Your task to perform on an android device: What's the weather like in Paris? Image 0: 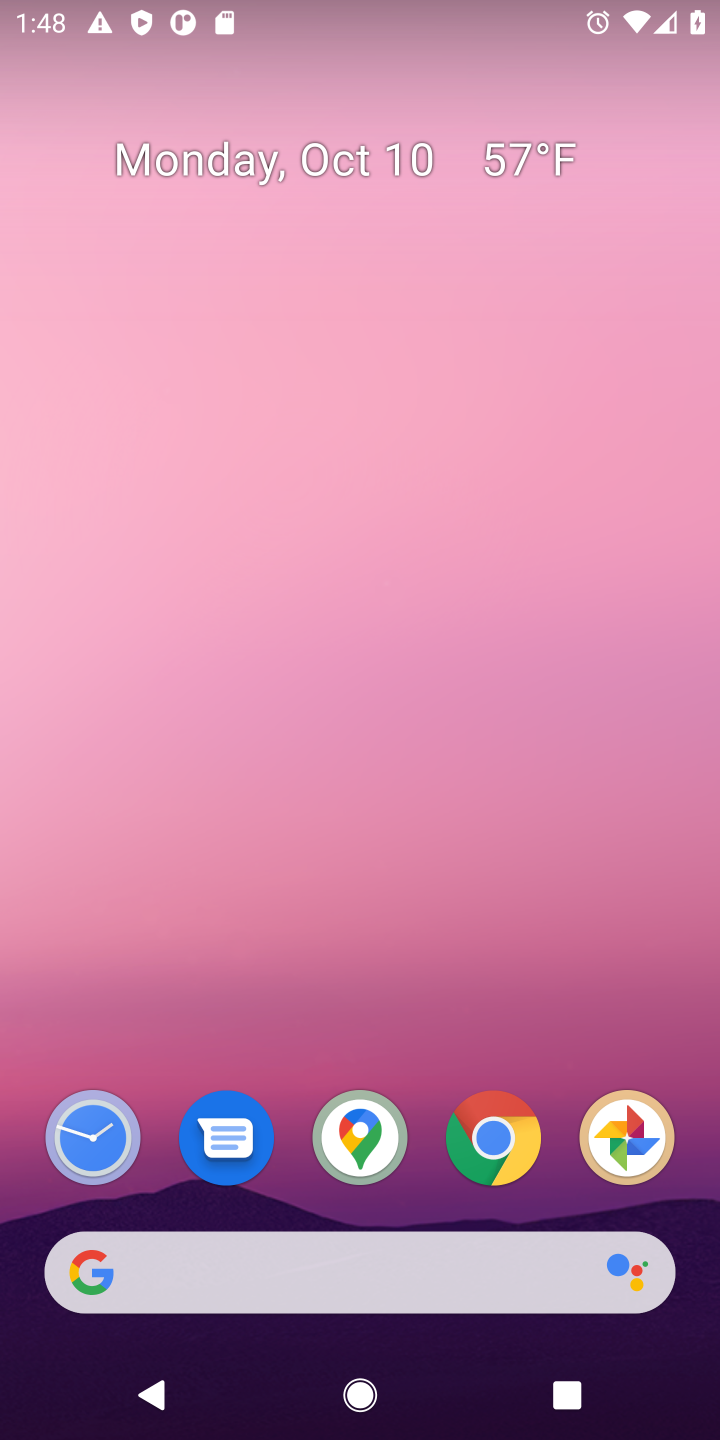
Step 0: click (422, 1270)
Your task to perform on an android device: What's the weather like in Paris? Image 1: 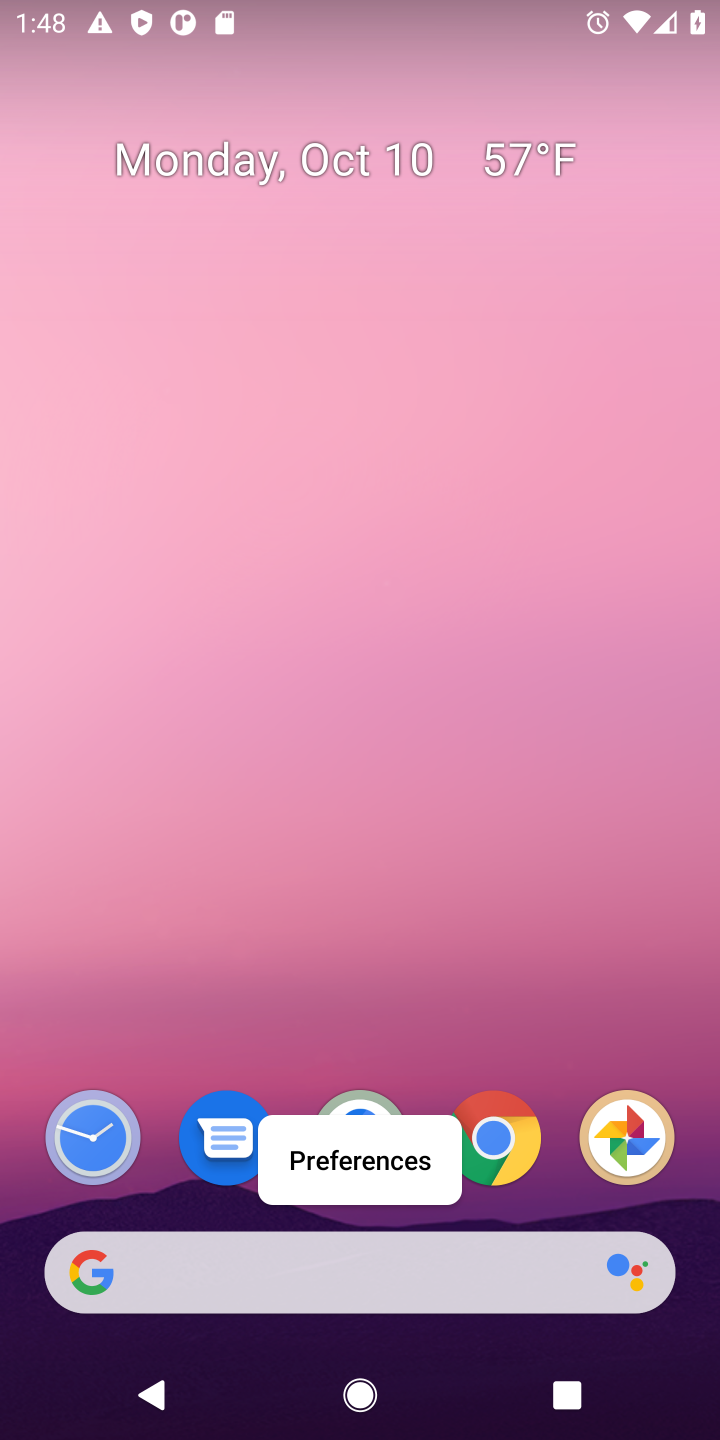
Step 1: click (177, 1254)
Your task to perform on an android device: What's the weather like in Paris? Image 2: 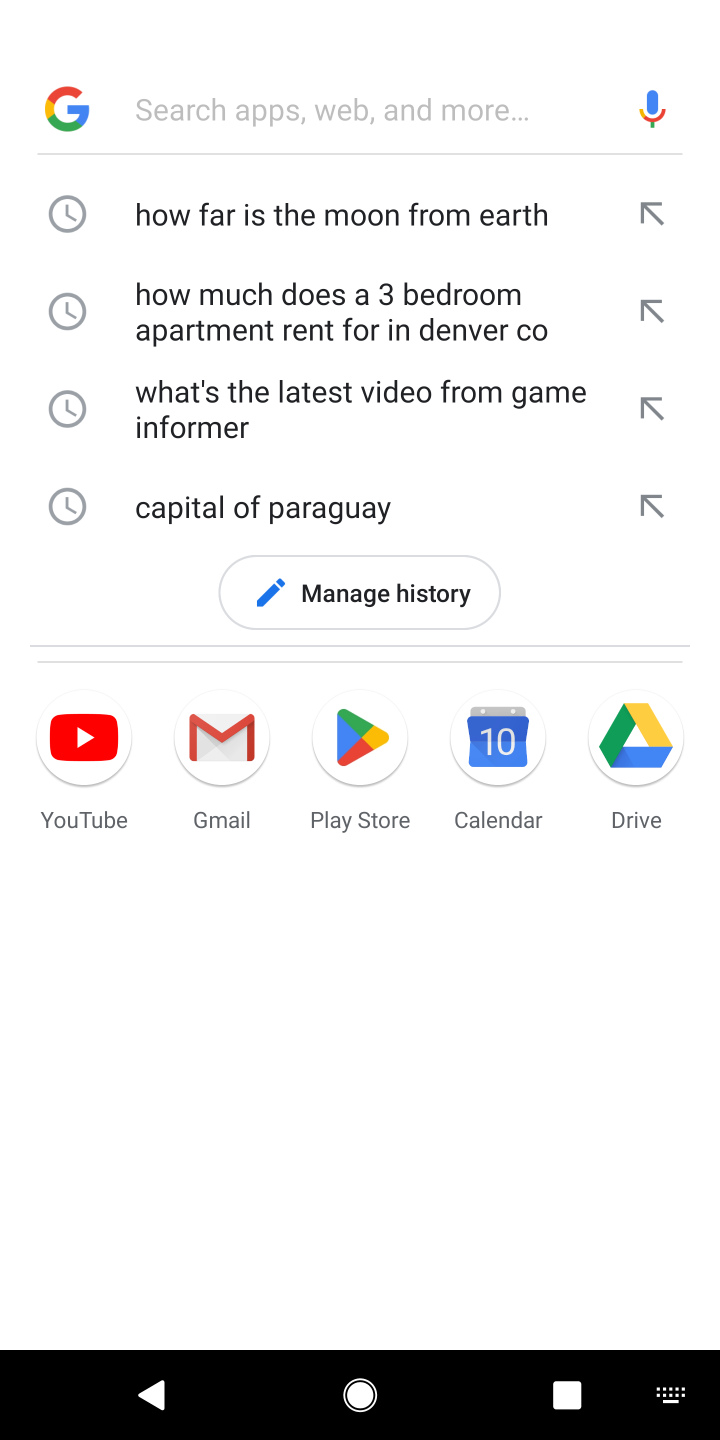
Step 2: type "whats the weather like in paris?"
Your task to perform on an android device: What's the weather like in Paris? Image 3: 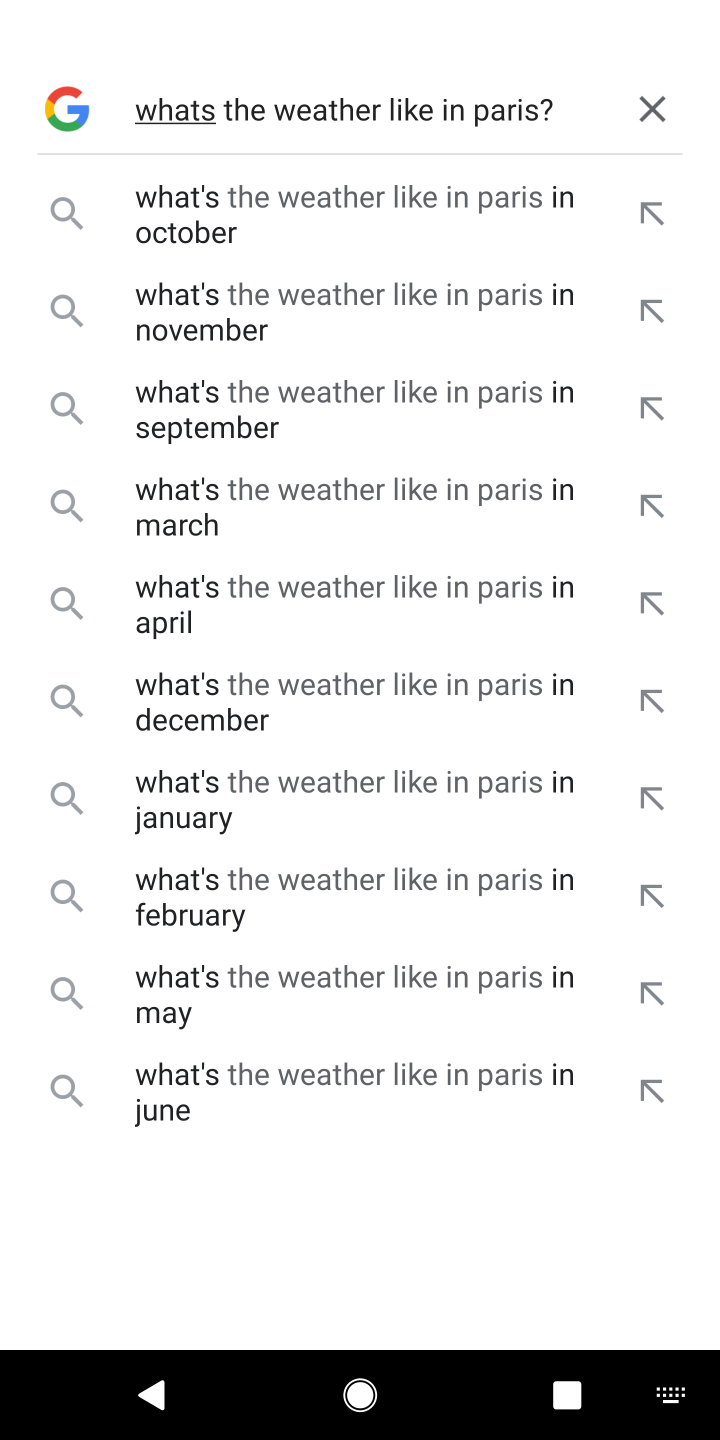
Step 3: click (231, 201)
Your task to perform on an android device: What's the weather like in Paris? Image 4: 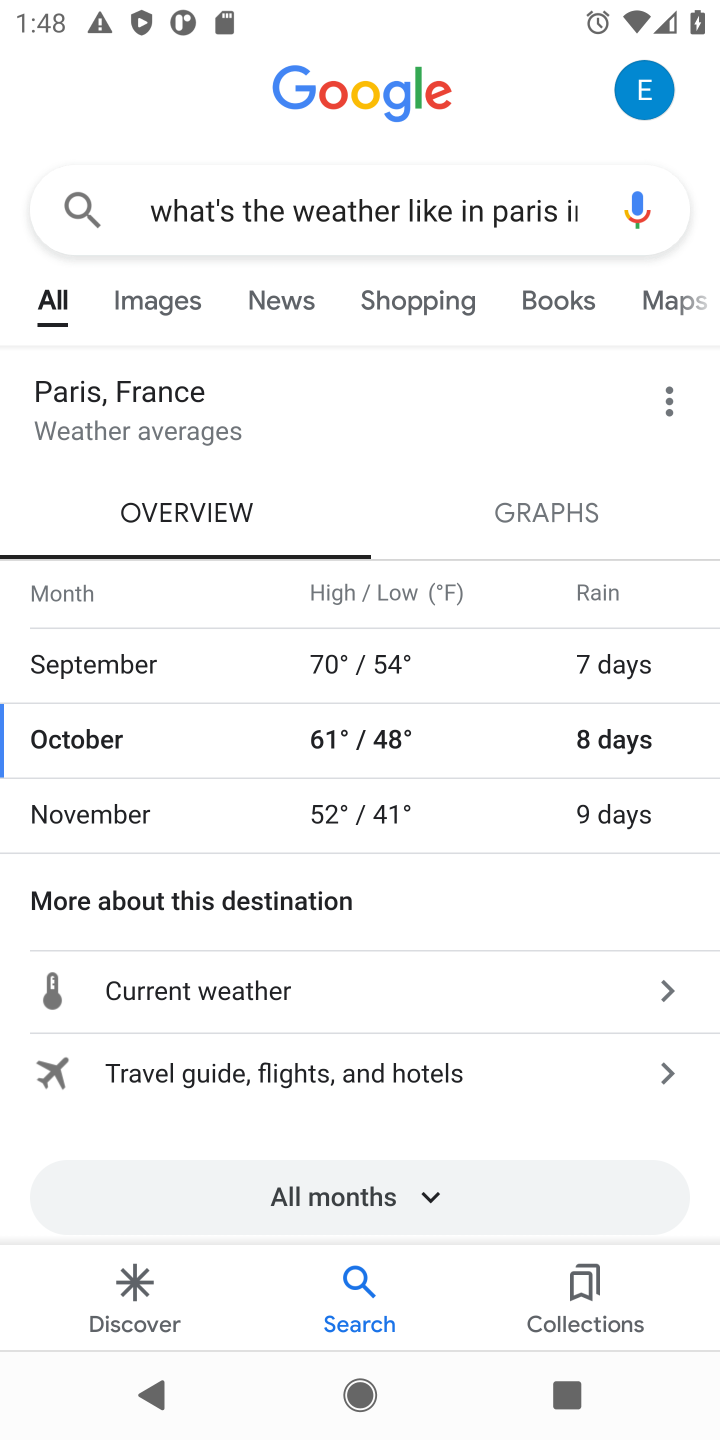
Step 4: task complete